Your task to perform on an android device: Open network settings Image 0: 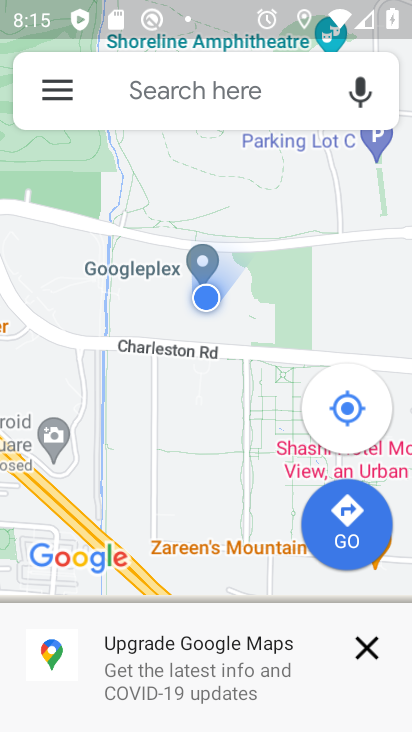
Step 0: press home button
Your task to perform on an android device: Open network settings Image 1: 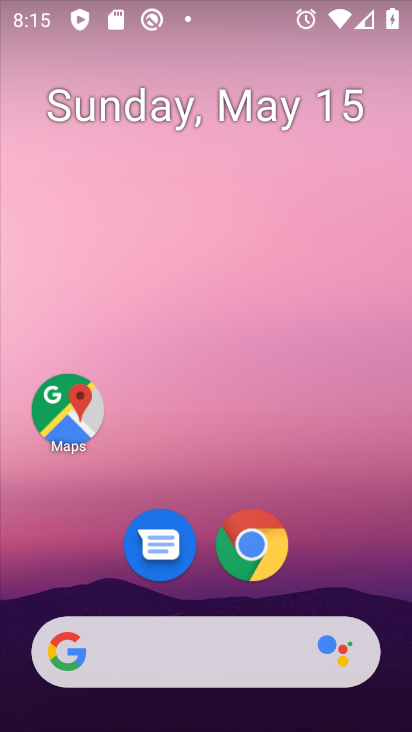
Step 1: drag from (367, 553) to (392, 83)
Your task to perform on an android device: Open network settings Image 2: 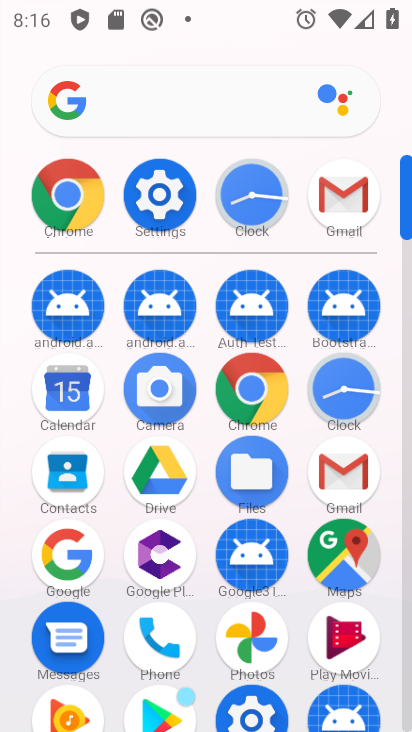
Step 2: click (154, 203)
Your task to perform on an android device: Open network settings Image 3: 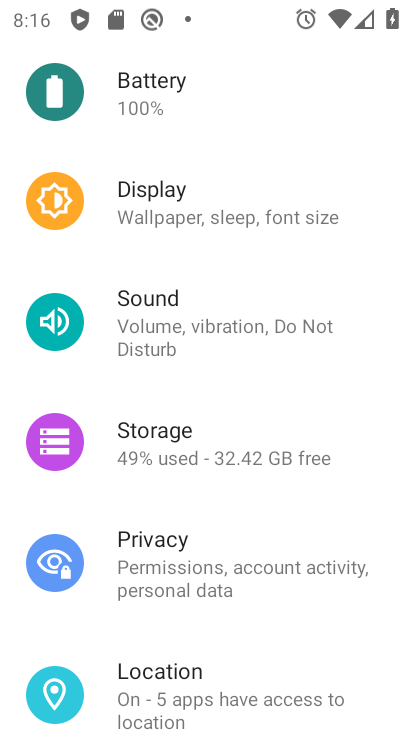
Step 3: drag from (376, 290) to (376, 480)
Your task to perform on an android device: Open network settings Image 4: 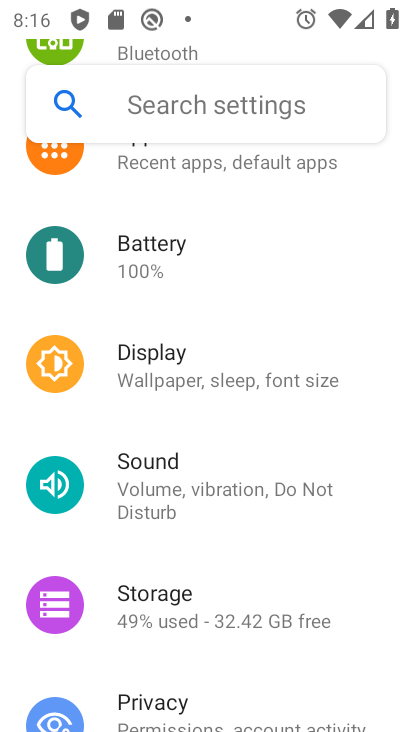
Step 4: drag from (366, 236) to (362, 464)
Your task to perform on an android device: Open network settings Image 5: 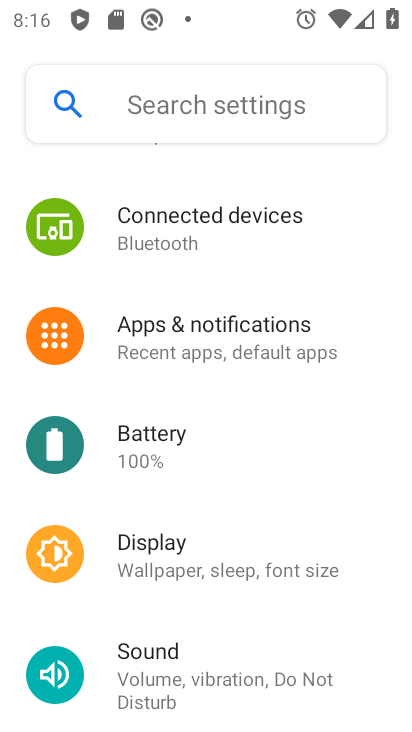
Step 5: drag from (370, 243) to (370, 453)
Your task to perform on an android device: Open network settings Image 6: 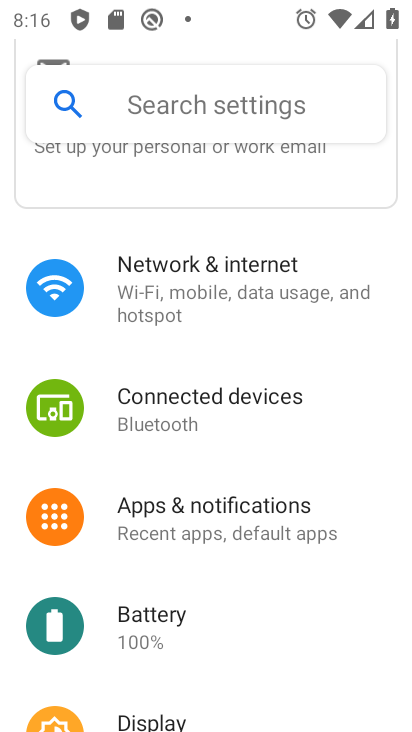
Step 6: drag from (370, 229) to (359, 466)
Your task to perform on an android device: Open network settings Image 7: 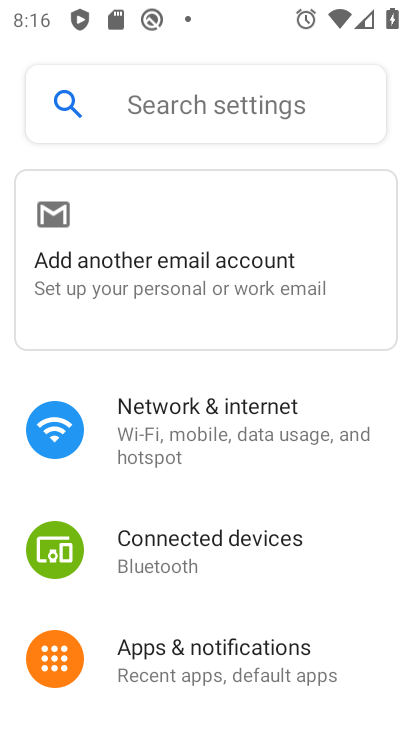
Step 7: click (254, 412)
Your task to perform on an android device: Open network settings Image 8: 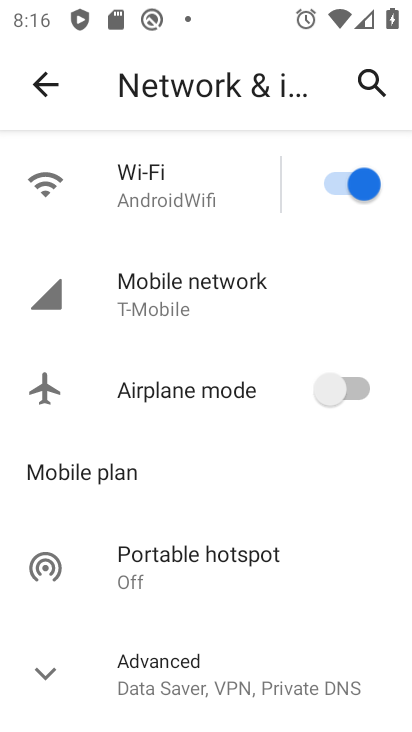
Step 8: task complete